Your task to perform on an android device: create a new album in the google photos Image 0: 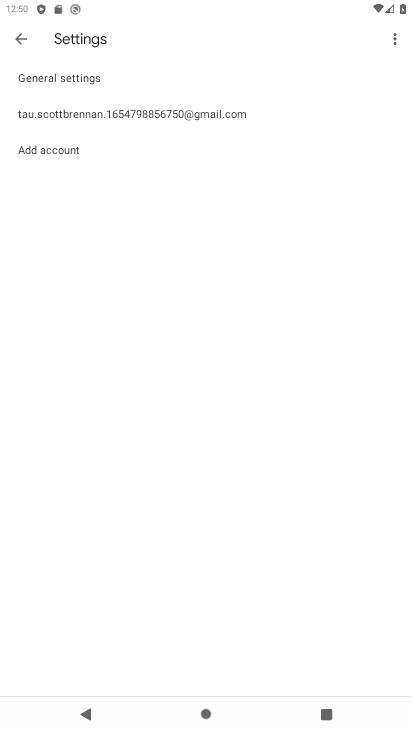
Step 0: drag from (258, 635) to (277, 396)
Your task to perform on an android device: create a new album in the google photos Image 1: 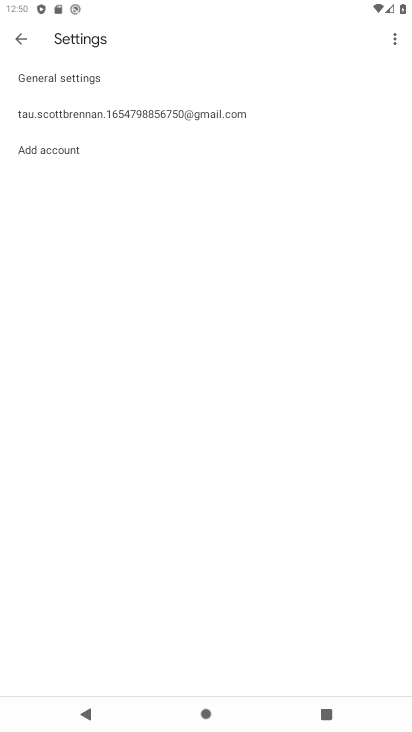
Step 1: press home button
Your task to perform on an android device: create a new album in the google photos Image 2: 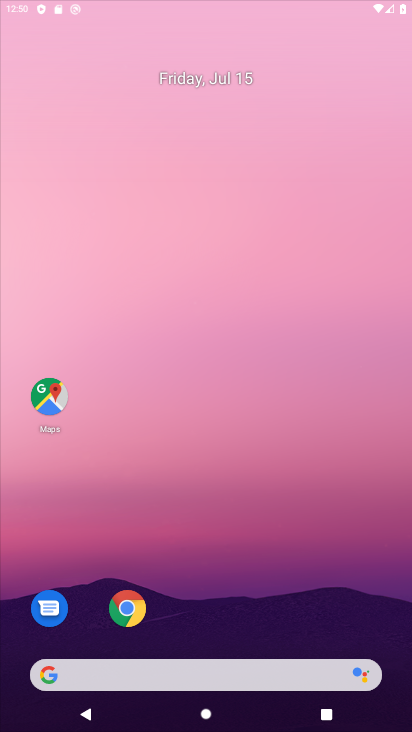
Step 2: drag from (164, 655) to (173, 187)
Your task to perform on an android device: create a new album in the google photos Image 3: 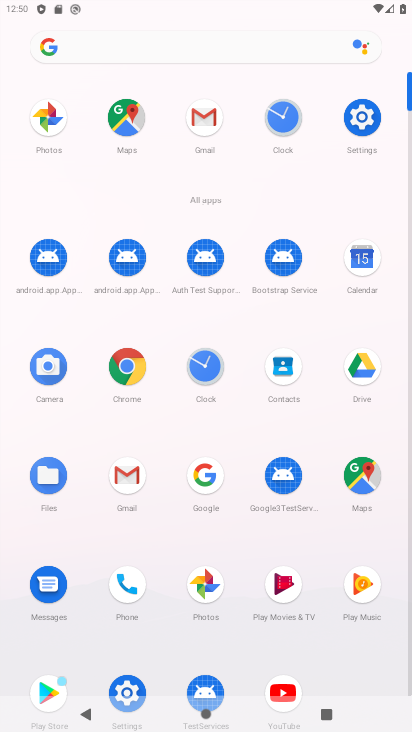
Step 3: click (201, 581)
Your task to perform on an android device: create a new album in the google photos Image 4: 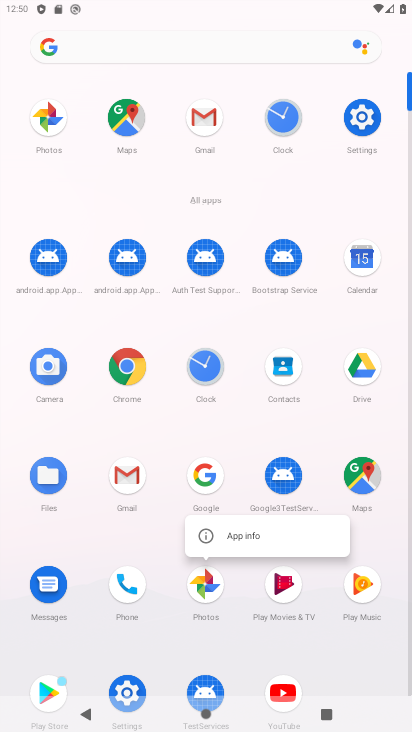
Step 4: click (227, 539)
Your task to perform on an android device: create a new album in the google photos Image 5: 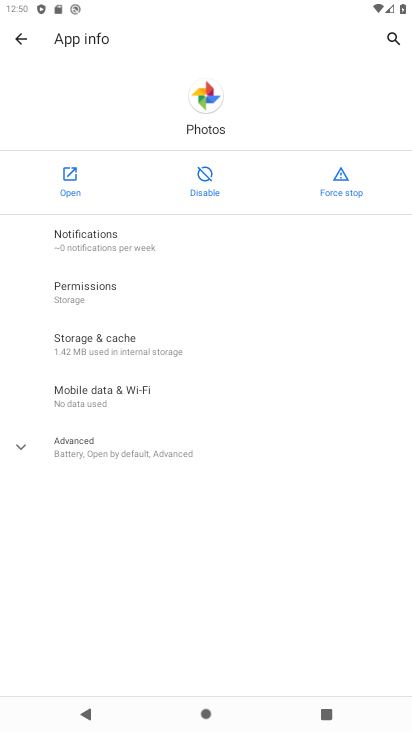
Step 5: click (63, 184)
Your task to perform on an android device: create a new album in the google photos Image 6: 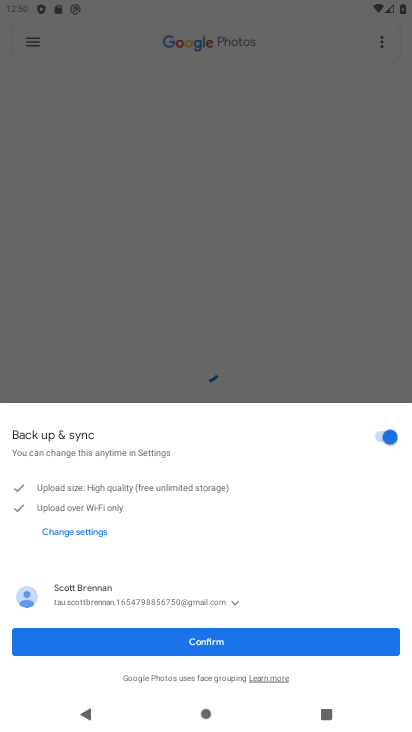
Step 6: click (173, 637)
Your task to perform on an android device: create a new album in the google photos Image 7: 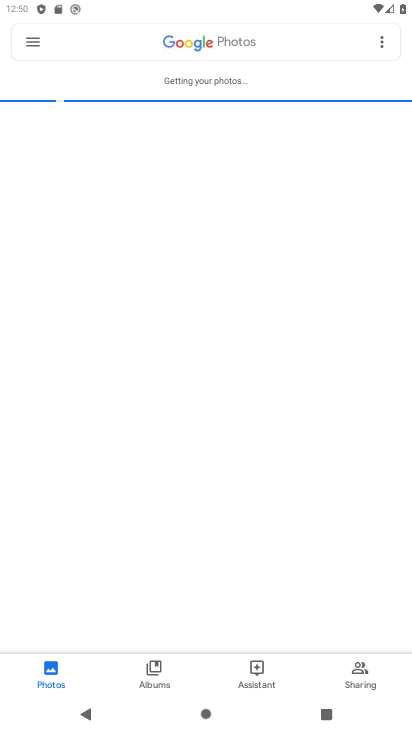
Step 7: drag from (218, 572) to (214, 309)
Your task to perform on an android device: create a new album in the google photos Image 8: 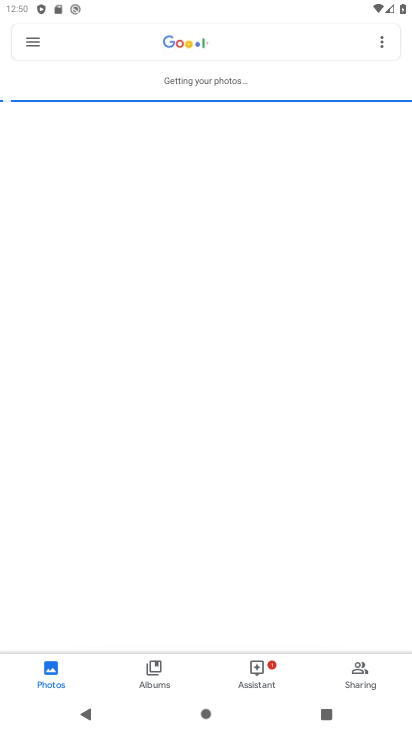
Step 8: drag from (214, 186) to (285, 562)
Your task to perform on an android device: create a new album in the google photos Image 9: 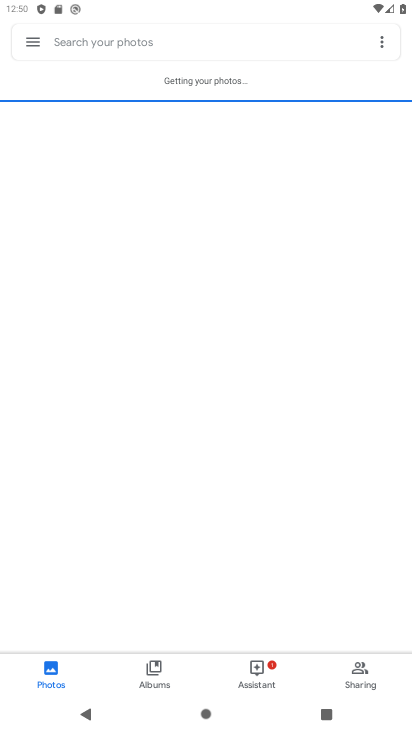
Step 9: drag from (204, 298) to (267, 685)
Your task to perform on an android device: create a new album in the google photos Image 10: 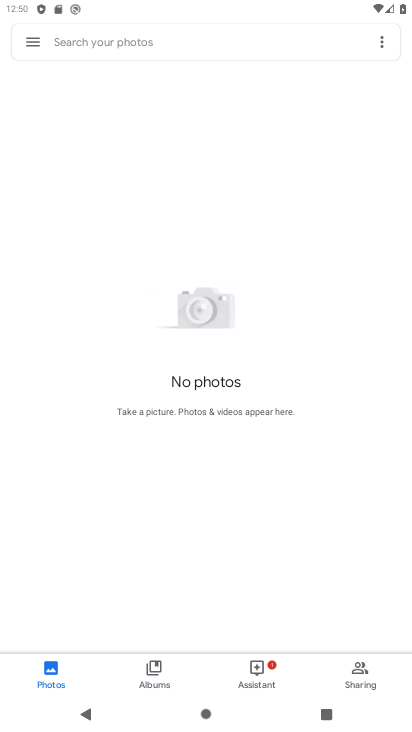
Step 10: click (140, 678)
Your task to perform on an android device: create a new album in the google photos Image 11: 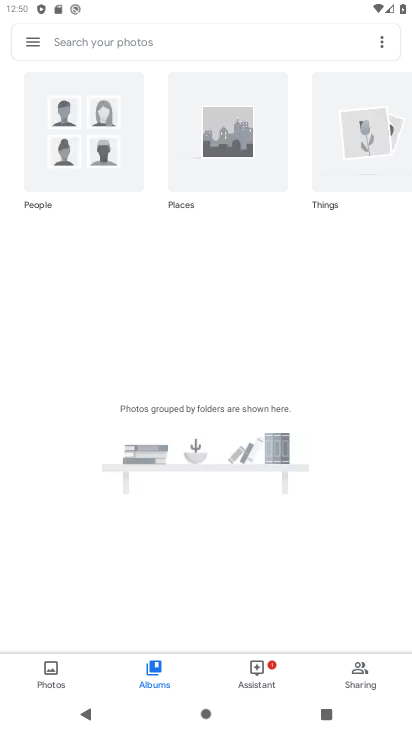
Step 11: click (226, 434)
Your task to perform on an android device: create a new album in the google photos Image 12: 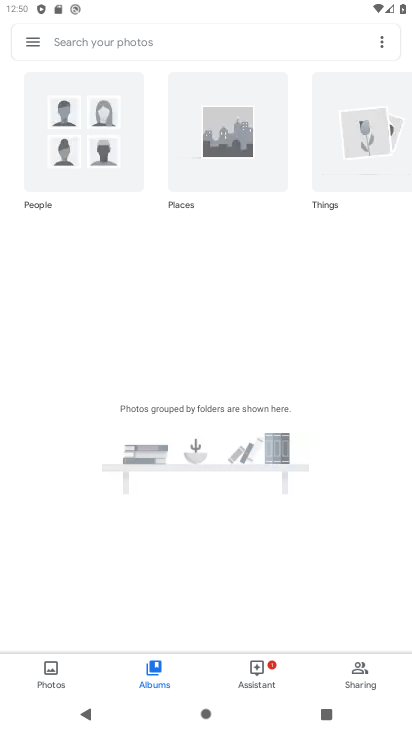
Step 12: click (309, 379)
Your task to perform on an android device: create a new album in the google photos Image 13: 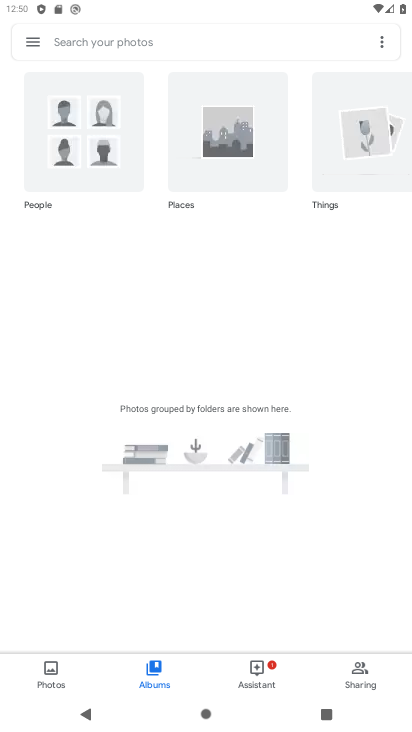
Step 13: task complete